Your task to perform on an android device: Open Google Chrome Image 0: 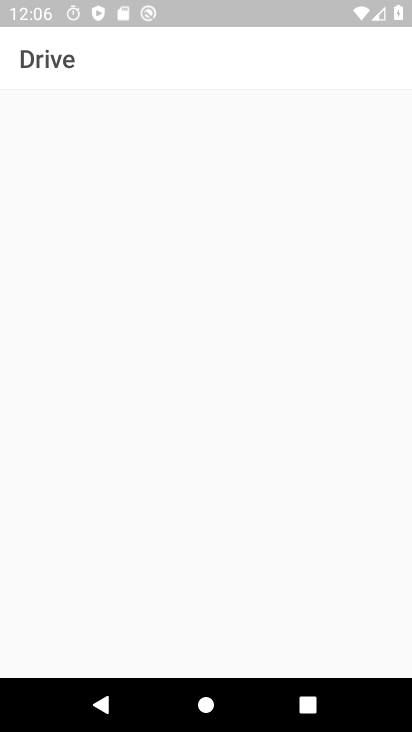
Step 0: press home button
Your task to perform on an android device: Open Google Chrome Image 1: 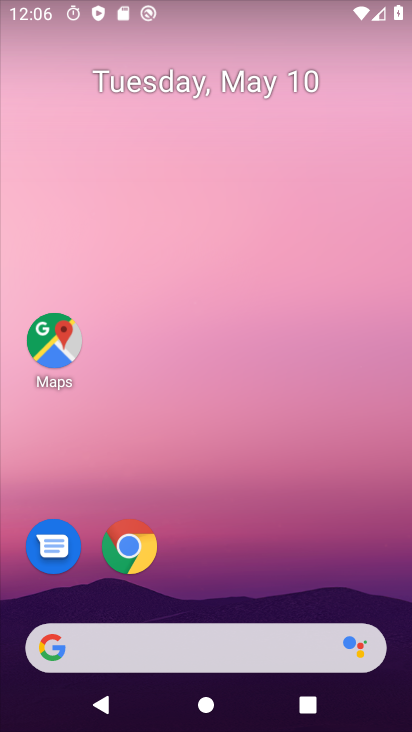
Step 1: click (118, 548)
Your task to perform on an android device: Open Google Chrome Image 2: 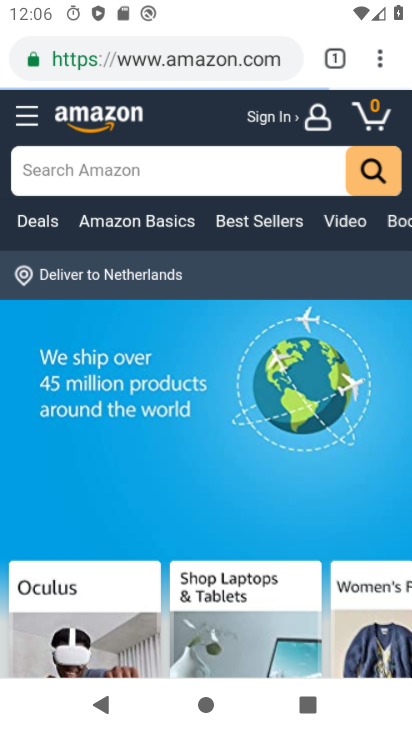
Step 2: task complete